Your task to perform on an android device: change the clock display to analog Image 0: 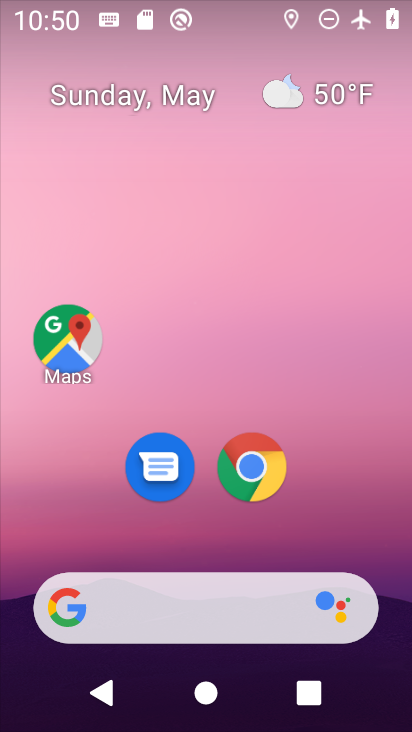
Step 0: click (189, 201)
Your task to perform on an android device: change the clock display to analog Image 1: 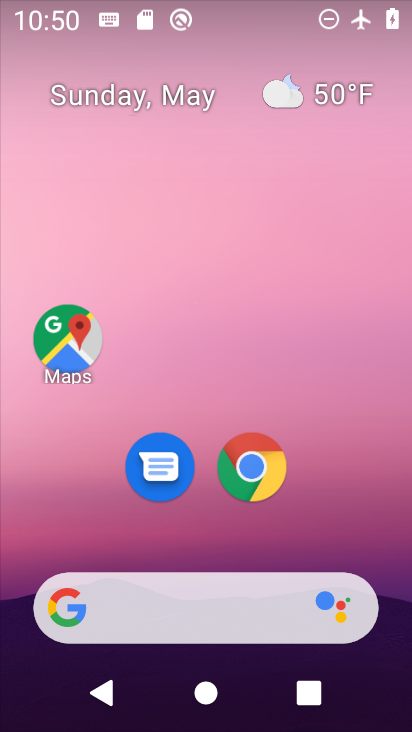
Step 1: drag from (201, 549) to (235, 179)
Your task to perform on an android device: change the clock display to analog Image 2: 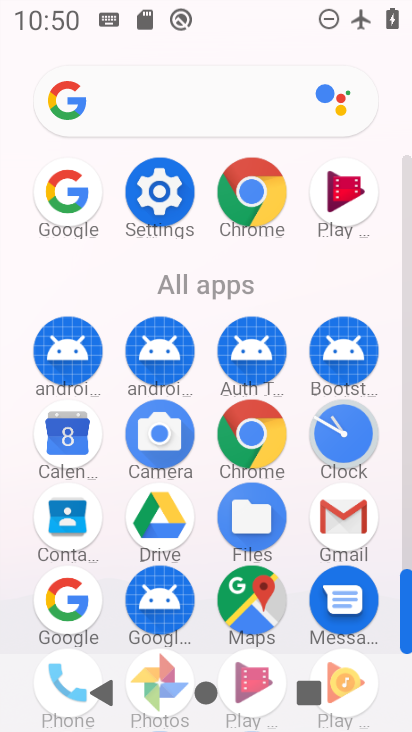
Step 2: click (346, 429)
Your task to perform on an android device: change the clock display to analog Image 3: 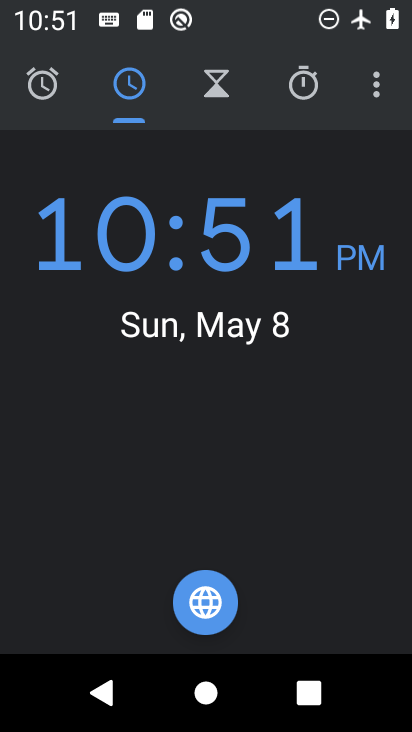
Step 3: click (360, 85)
Your task to perform on an android device: change the clock display to analog Image 4: 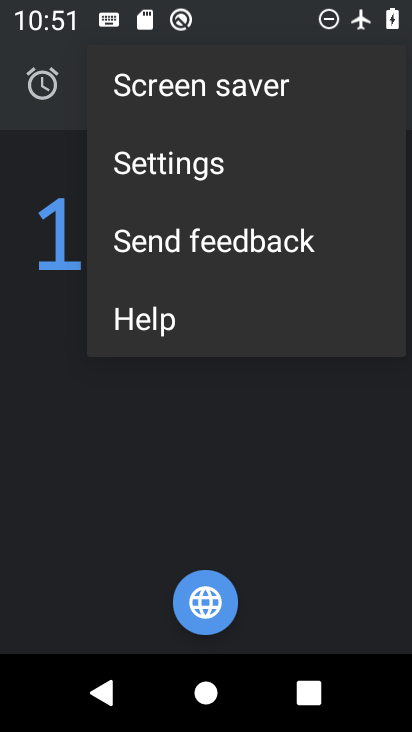
Step 4: click (230, 162)
Your task to perform on an android device: change the clock display to analog Image 5: 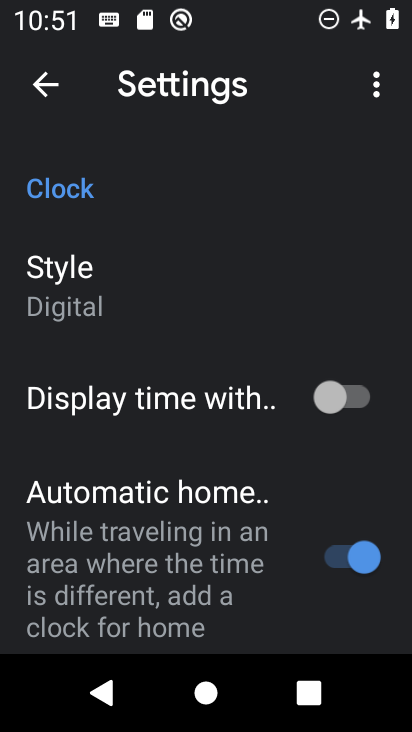
Step 5: click (116, 295)
Your task to perform on an android device: change the clock display to analog Image 6: 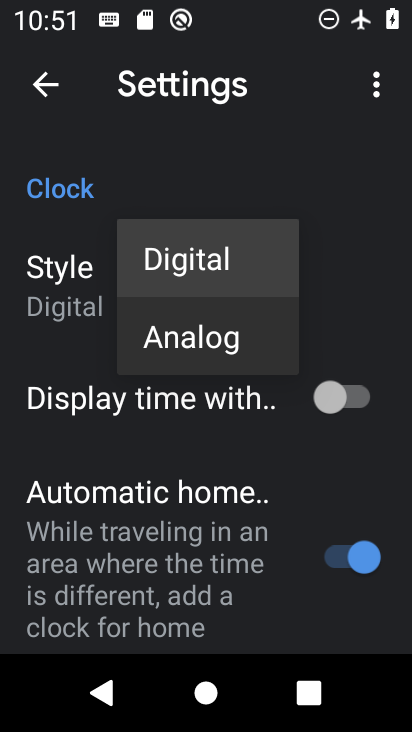
Step 6: click (215, 329)
Your task to perform on an android device: change the clock display to analog Image 7: 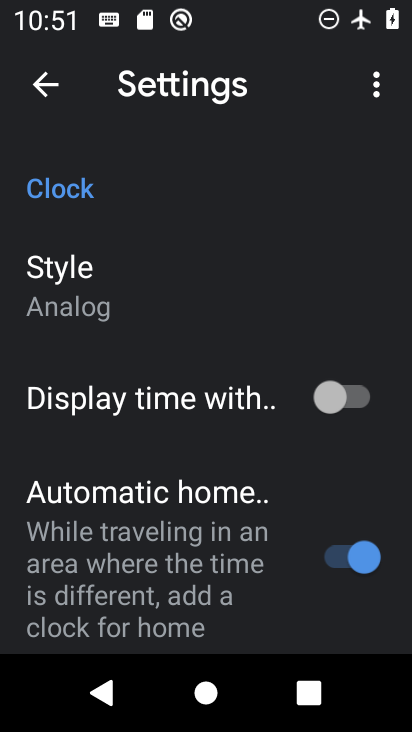
Step 7: task complete